Your task to perform on an android device: open app "Life360: Find Family & Friends" (install if not already installed) Image 0: 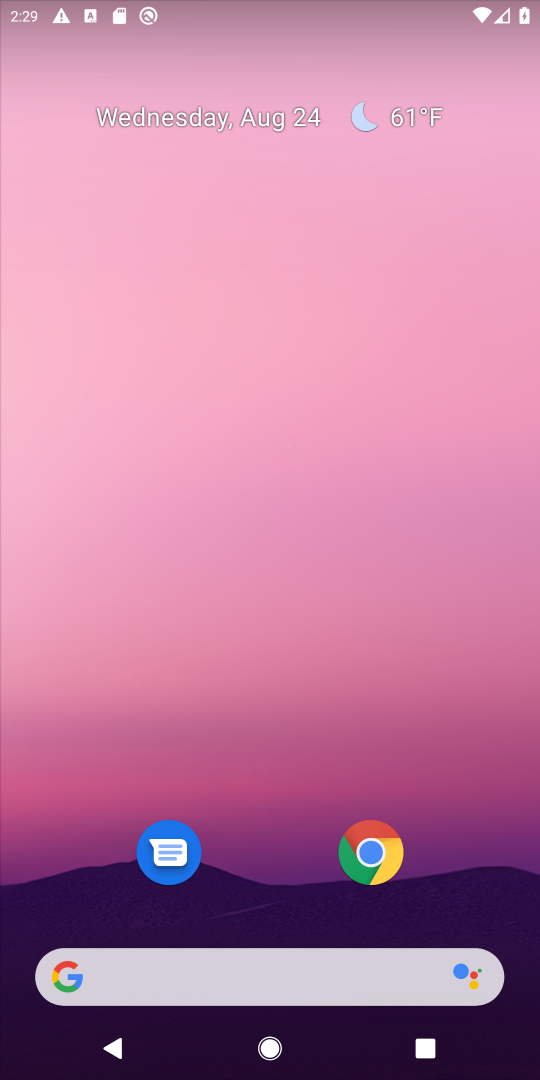
Step 0: drag from (269, 899) to (314, 0)
Your task to perform on an android device: open app "Life360: Find Family & Friends" (install if not already installed) Image 1: 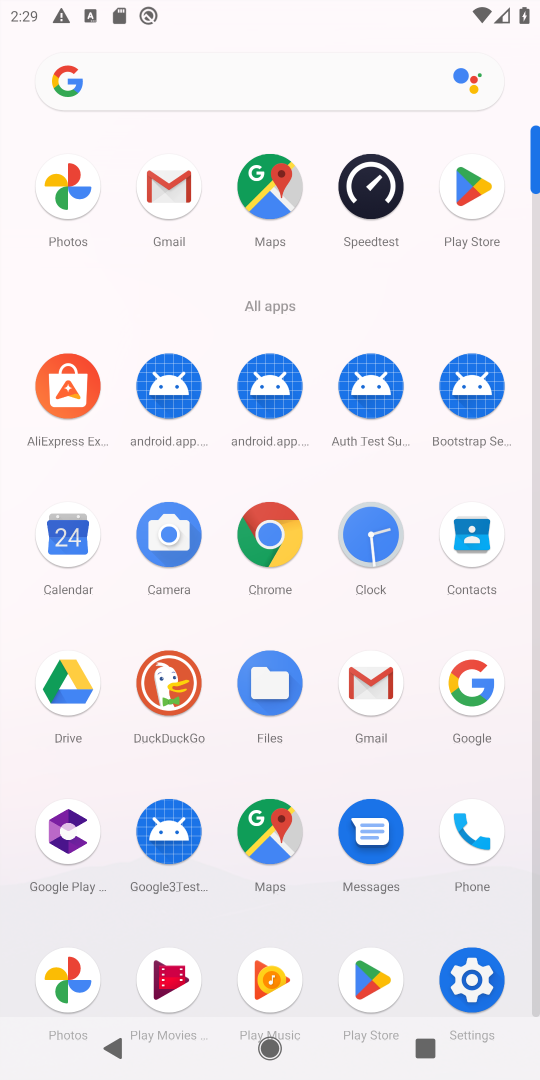
Step 1: click (474, 175)
Your task to perform on an android device: open app "Life360: Find Family & Friends" (install if not already installed) Image 2: 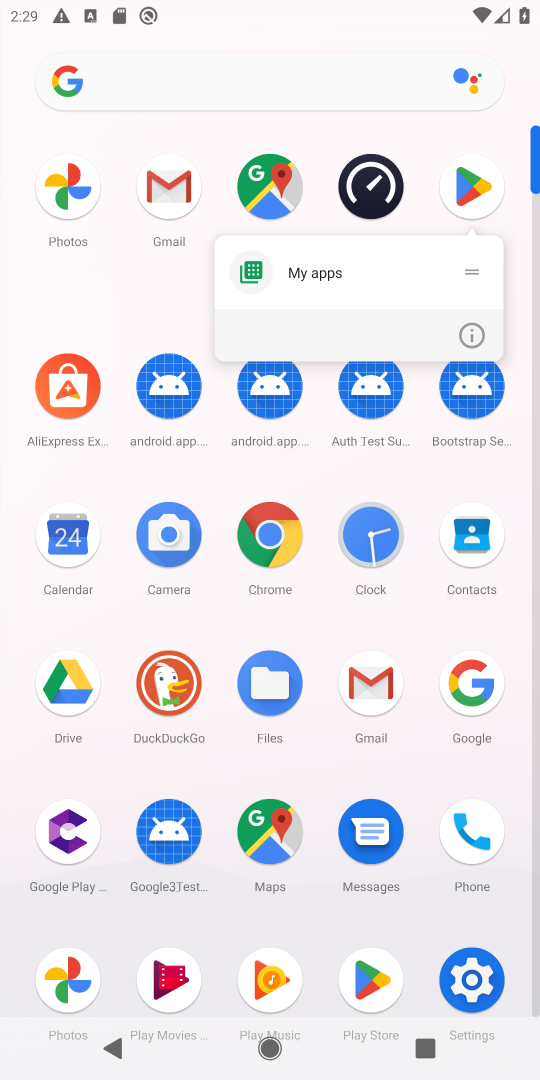
Step 2: click (474, 177)
Your task to perform on an android device: open app "Life360: Find Family & Friends" (install if not already installed) Image 3: 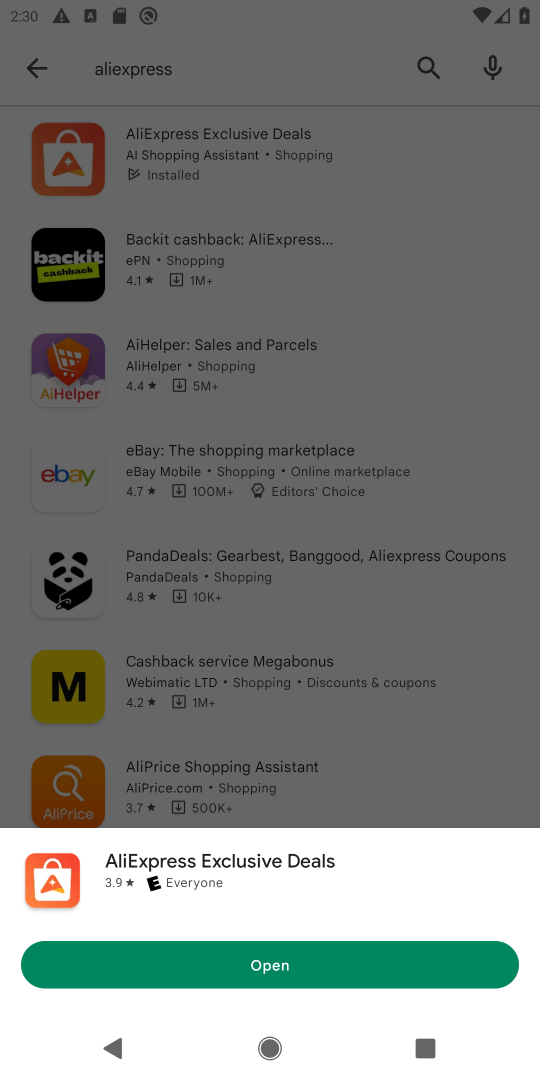
Step 3: press home button
Your task to perform on an android device: open app "Life360: Find Family & Friends" (install if not already installed) Image 4: 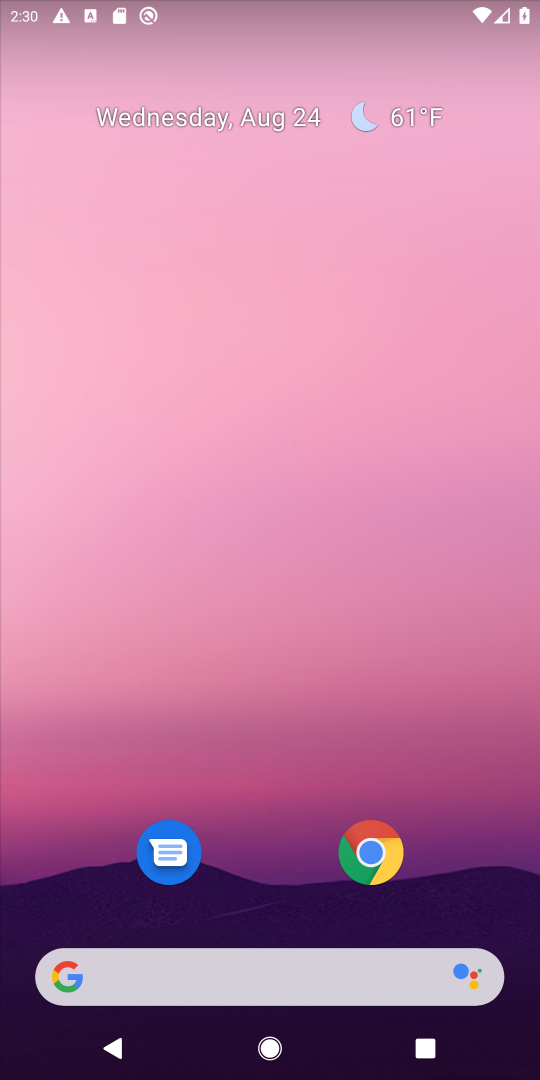
Step 4: drag from (295, 863) to (295, 36)
Your task to perform on an android device: open app "Life360: Find Family & Friends" (install if not already installed) Image 5: 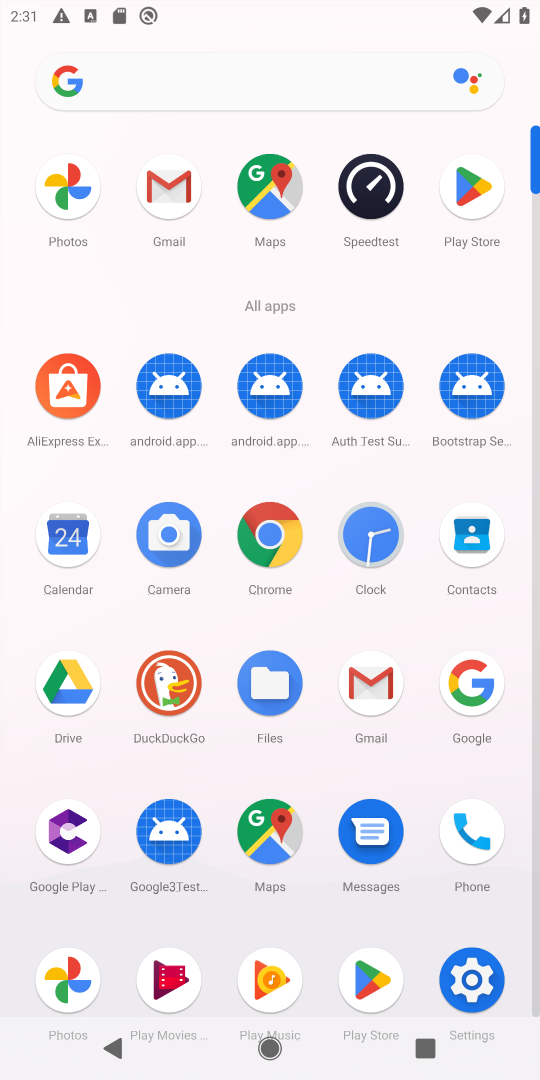
Step 5: click (456, 188)
Your task to perform on an android device: open app "Life360: Find Family & Friends" (install if not already installed) Image 6: 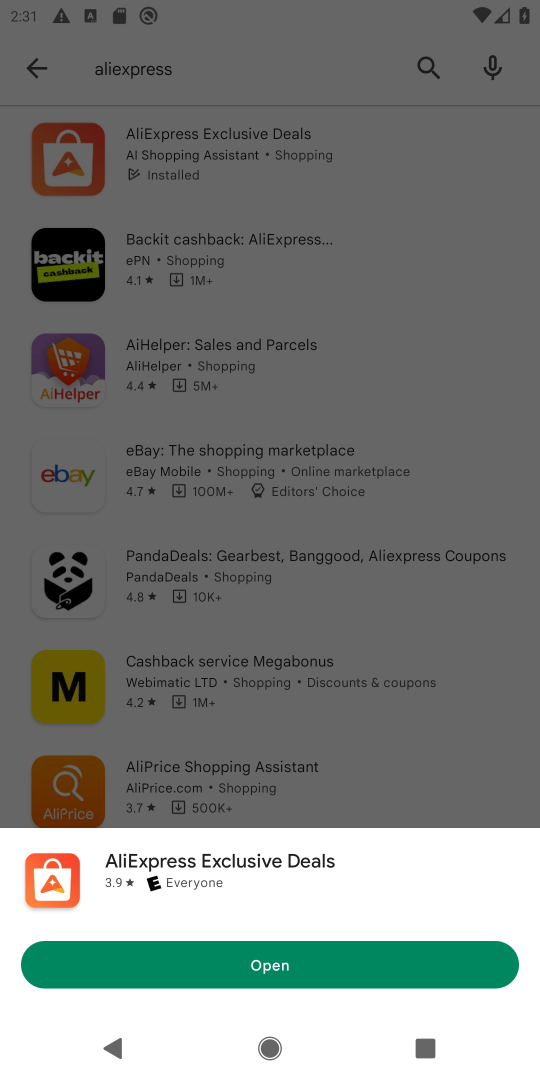
Step 6: click (286, 400)
Your task to perform on an android device: open app "Life360: Find Family & Friends" (install if not already installed) Image 7: 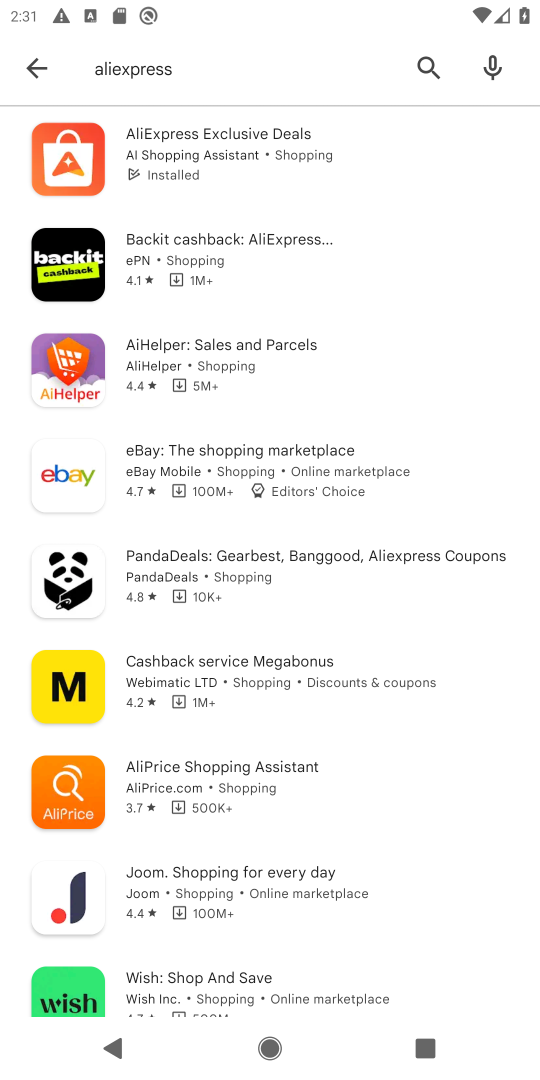
Step 7: click (433, 70)
Your task to perform on an android device: open app "Life360: Find Family & Friends" (install if not already installed) Image 8: 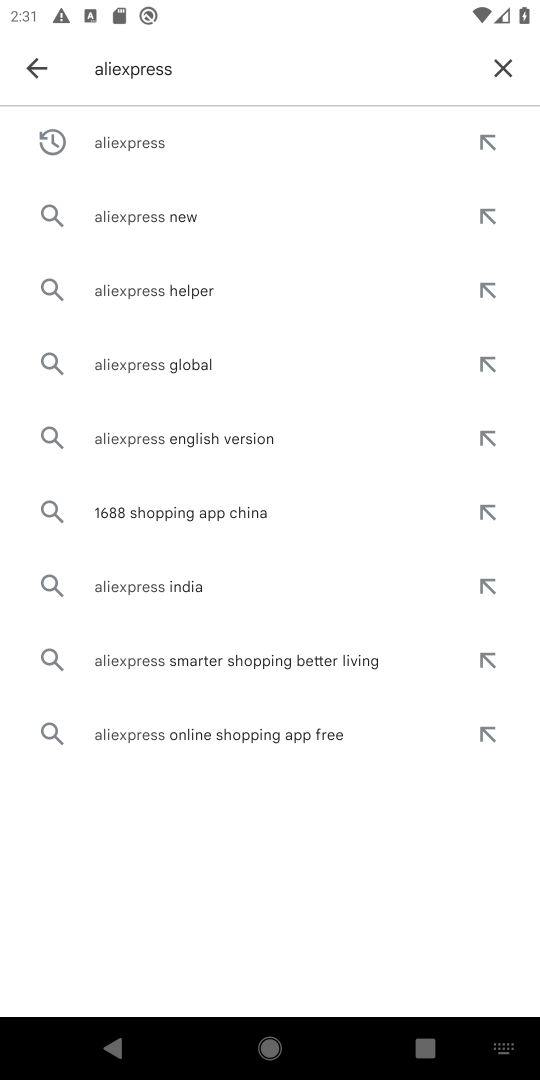
Step 8: click (510, 59)
Your task to perform on an android device: open app "Life360: Find Family & Friends" (install if not already installed) Image 9: 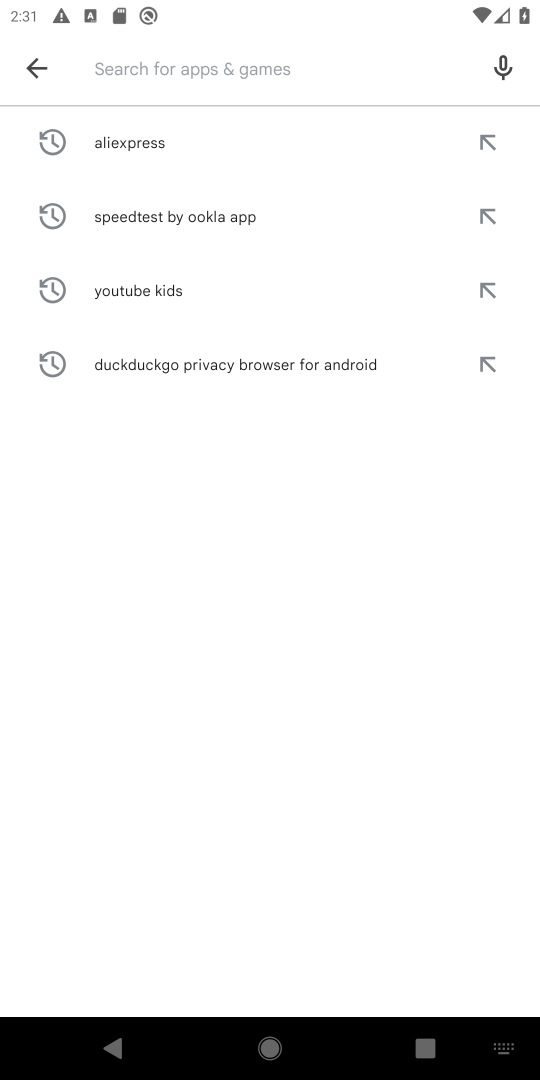
Step 9: type "Life360: Find Family & Friends"
Your task to perform on an android device: open app "Life360: Find Family & Friends" (install if not already installed) Image 10: 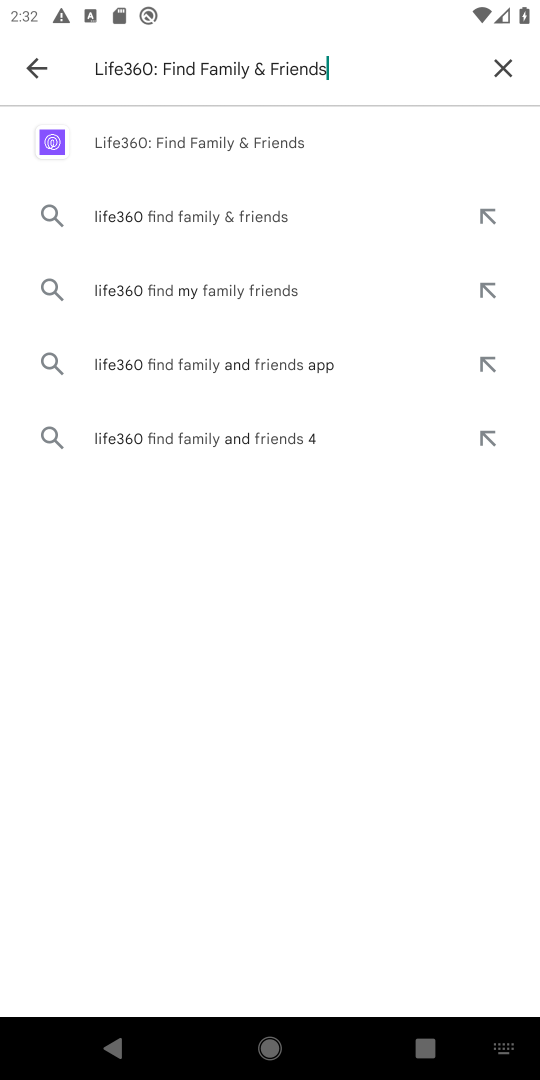
Step 10: click (120, 140)
Your task to perform on an android device: open app "Life360: Find Family & Friends" (install if not already installed) Image 11: 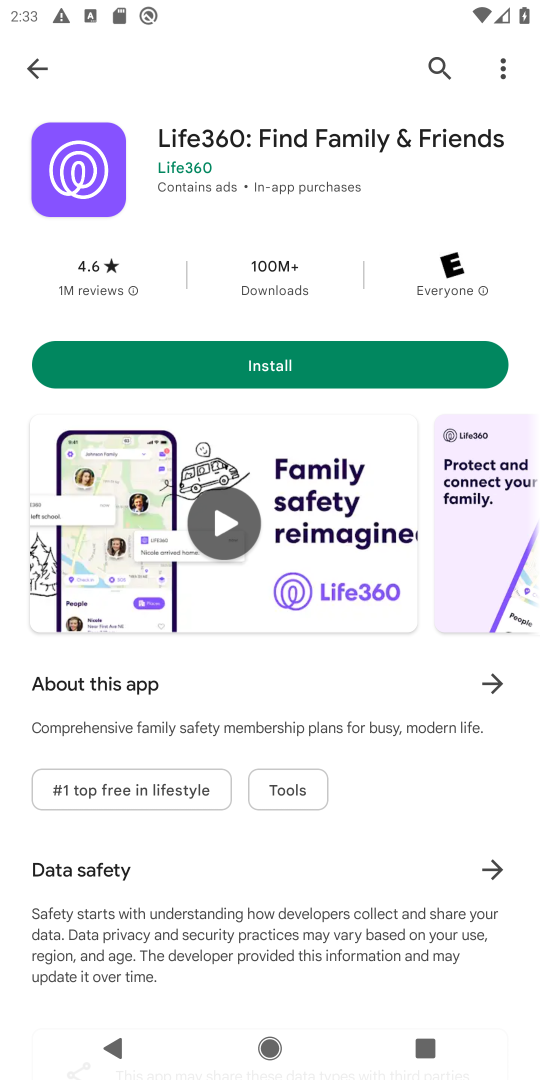
Step 11: click (260, 355)
Your task to perform on an android device: open app "Life360: Find Family & Friends" (install if not already installed) Image 12: 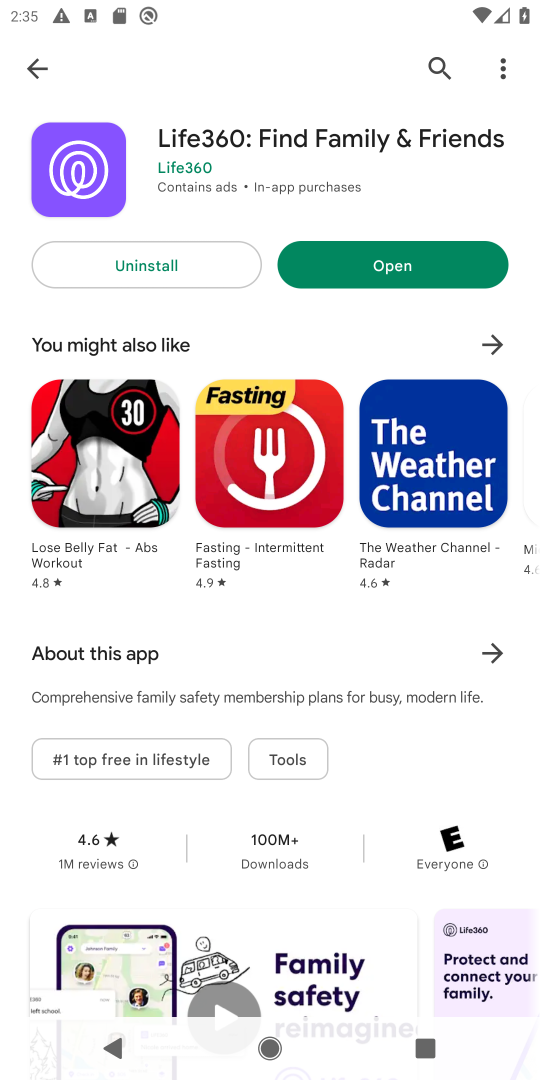
Step 12: click (406, 271)
Your task to perform on an android device: open app "Life360: Find Family & Friends" (install if not already installed) Image 13: 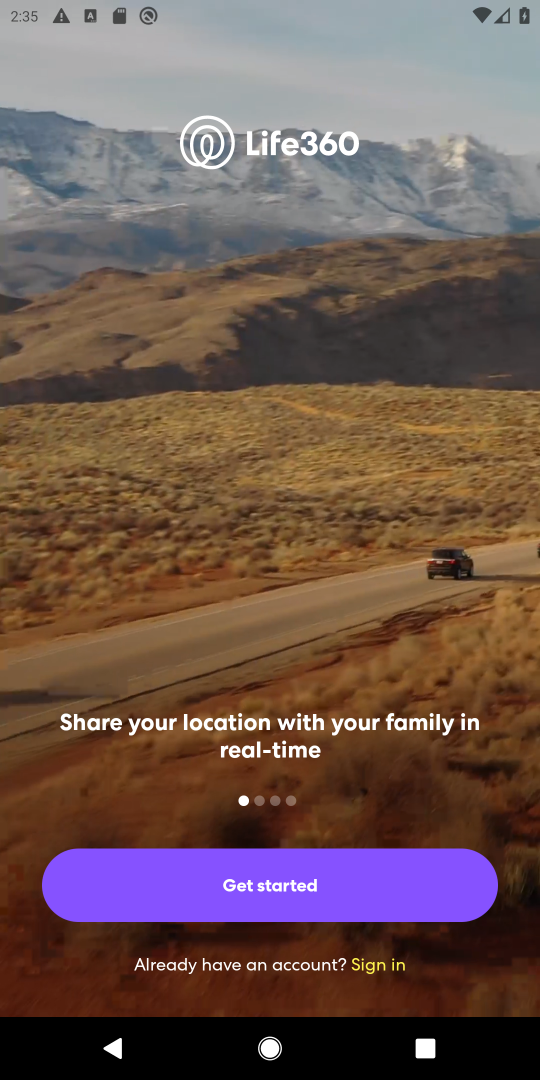
Step 13: click (281, 854)
Your task to perform on an android device: open app "Life360: Find Family & Friends" (install if not already installed) Image 14: 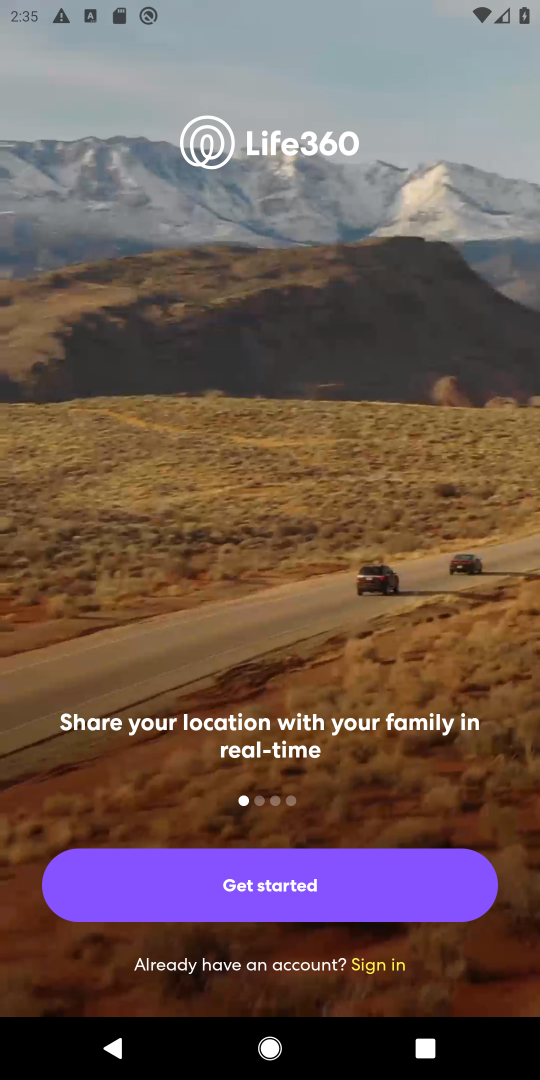
Step 14: click (276, 890)
Your task to perform on an android device: open app "Life360: Find Family & Friends" (install if not already installed) Image 15: 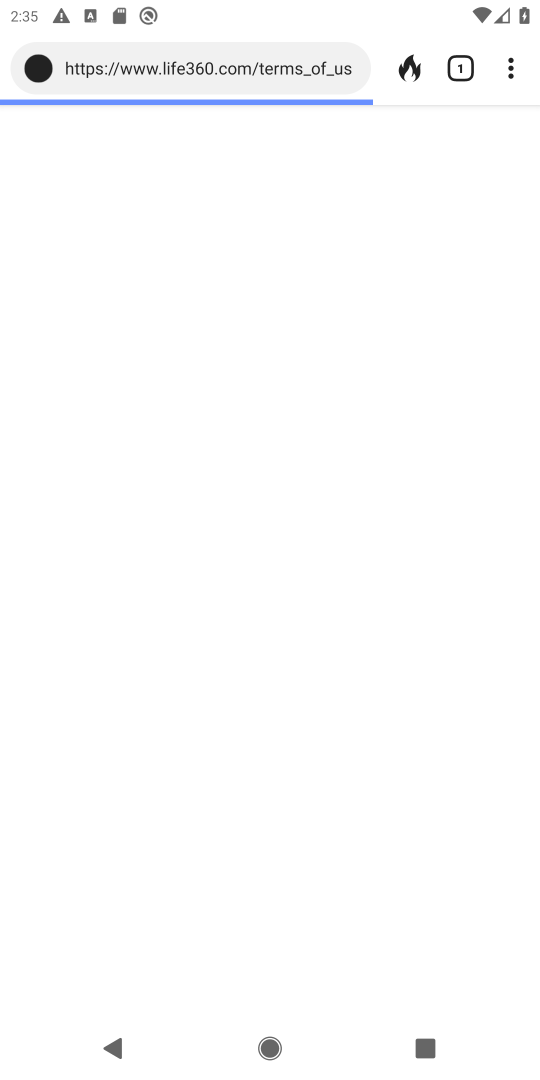
Step 15: task complete